Your task to perform on an android device: Open calendar and show me the fourth week of next month Image 0: 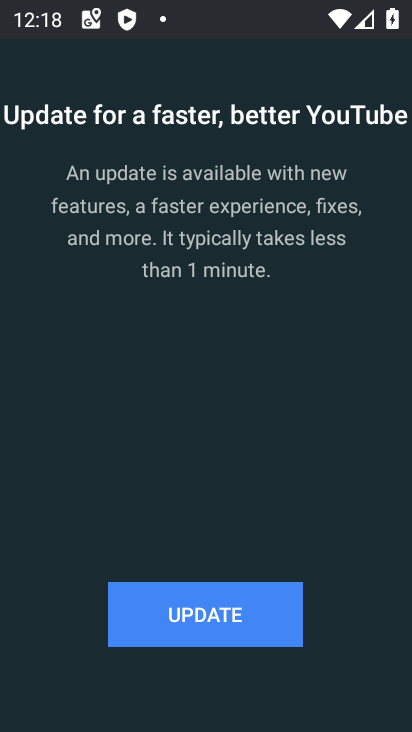
Step 0: press home button
Your task to perform on an android device: Open calendar and show me the fourth week of next month Image 1: 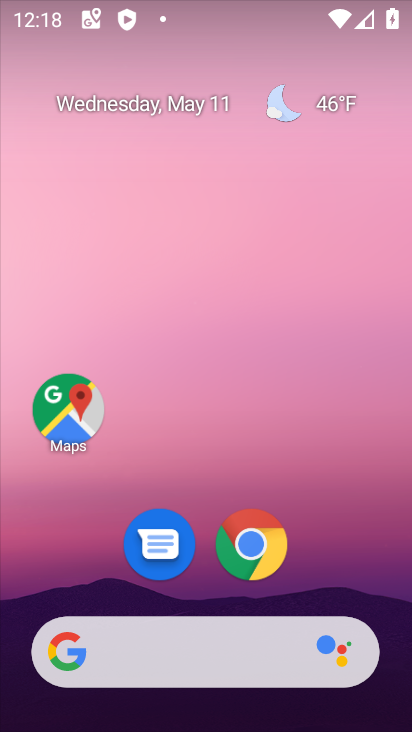
Step 1: drag from (389, 616) to (324, 69)
Your task to perform on an android device: Open calendar and show me the fourth week of next month Image 2: 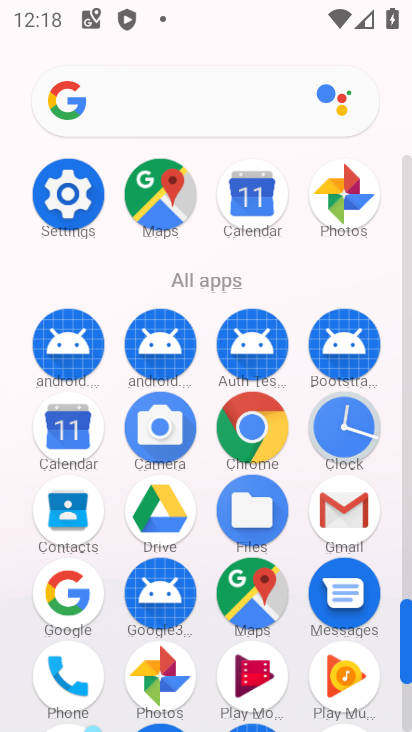
Step 2: click (406, 587)
Your task to perform on an android device: Open calendar and show me the fourth week of next month Image 3: 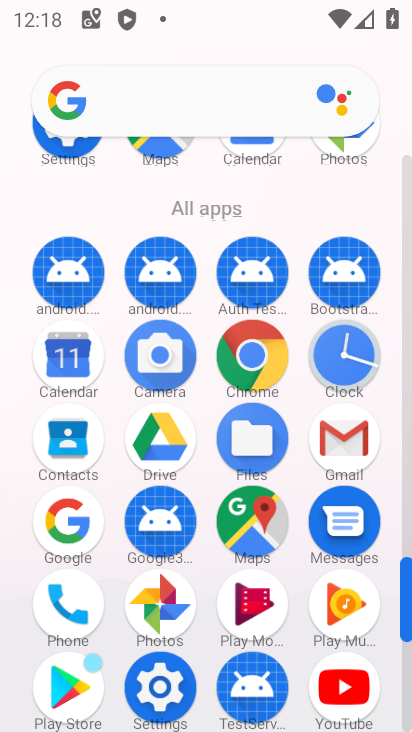
Step 3: click (68, 355)
Your task to perform on an android device: Open calendar and show me the fourth week of next month Image 4: 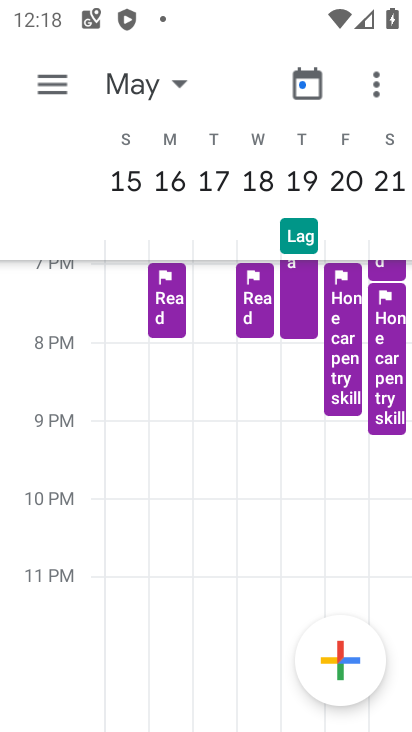
Step 4: click (42, 77)
Your task to perform on an android device: Open calendar and show me the fourth week of next month Image 5: 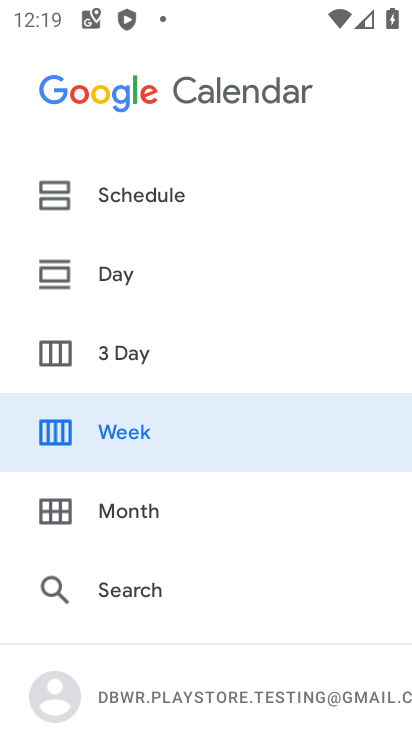
Step 5: click (155, 433)
Your task to perform on an android device: Open calendar and show me the fourth week of next month Image 6: 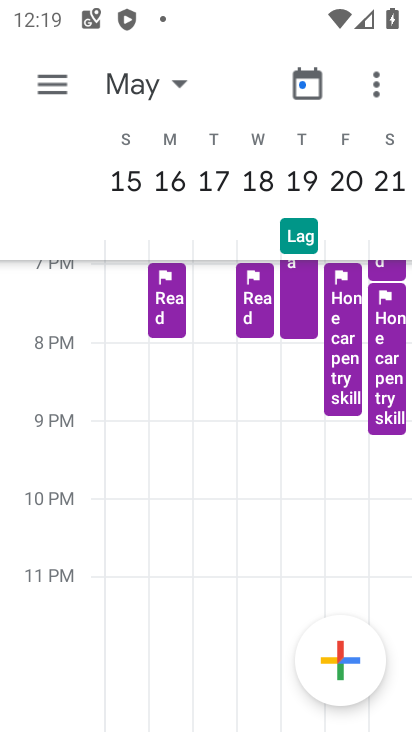
Step 6: click (177, 83)
Your task to perform on an android device: Open calendar and show me the fourth week of next month Image 7: 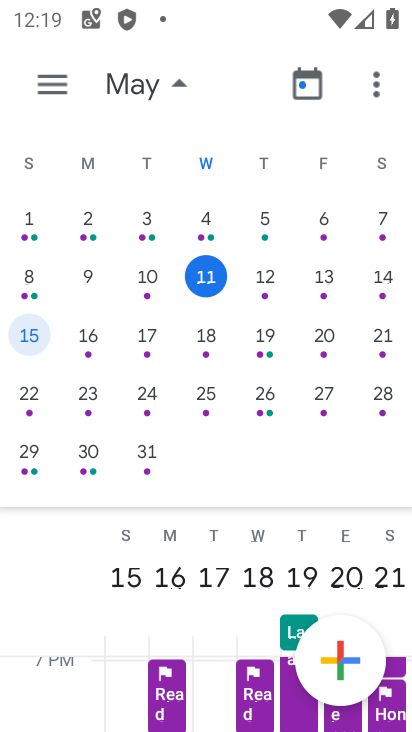
Step 7: drag from (377, 350) to (0, 352)
Your task to perform on an android device: Open calendar and show me the fourth week of next month Image 8: 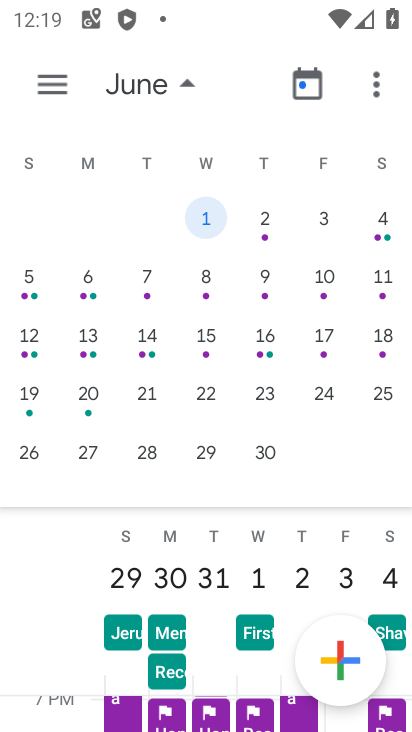
Step 8: click (25, 392)
Your task to perform on an android device: Open calendar and show me the fourth week of next month Image 9: 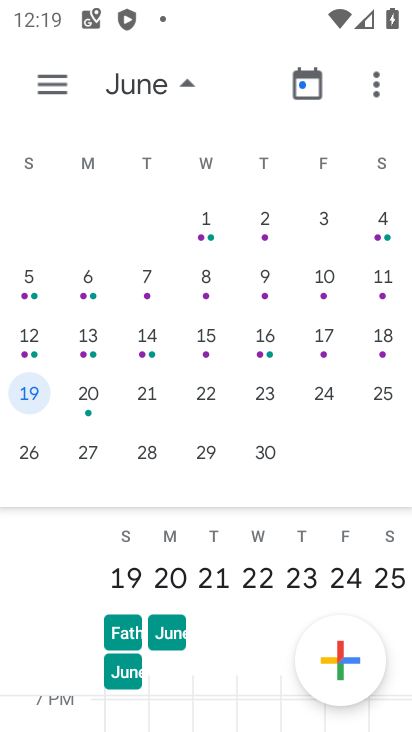
Step 9: task complete